Your task to perform on an android device: set default search engine in the chrome app Image 0: 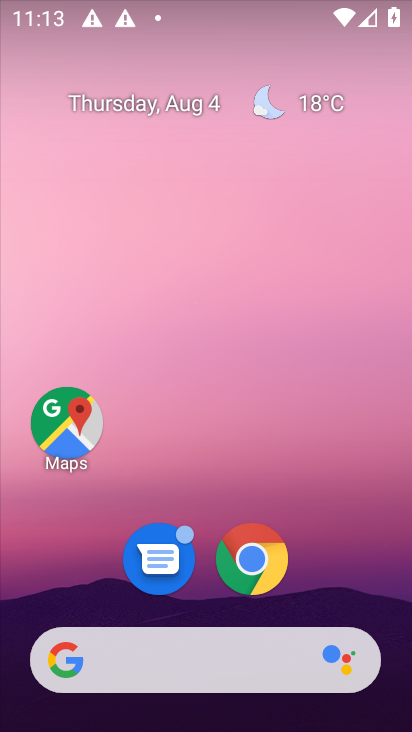
Step 0: click (256, 554)
Your task to perform on an android device: set default search engine in the chrome app Image 1: 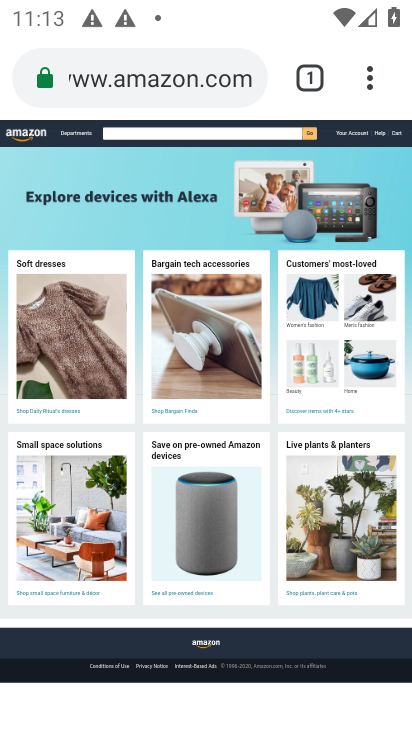
Step 1: click (369, 76)
Your task to perform on an android device: set default search engine in the chrome app Image 2: 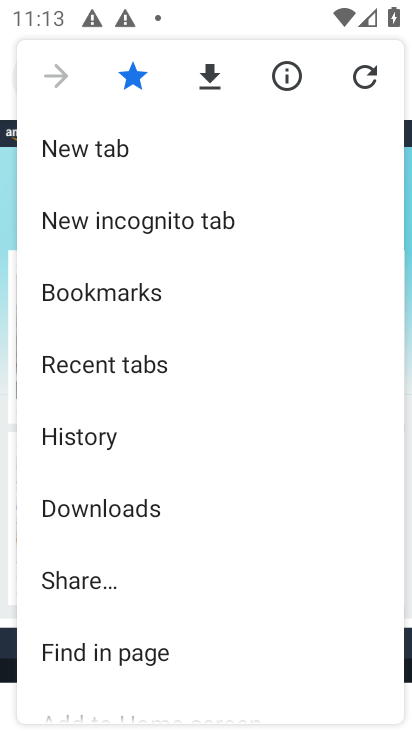
Step 2: click (409, 698)
Your task to perform on an android device: set default search engine in the chrome app Image 3: 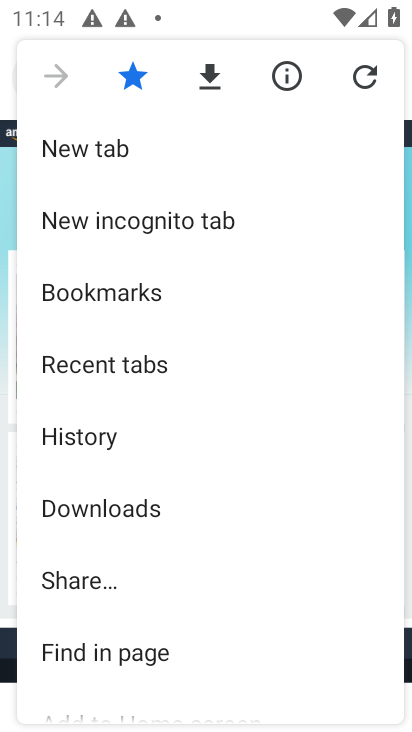
Step 3: drag from (367, 647) to (366, 469)
Your task to perform on an android device: set default search engine in the chrome app Image 4: 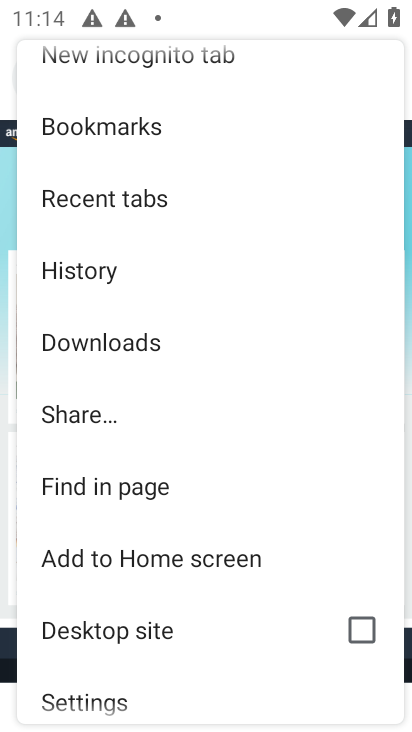
Step 4: click (124, 694)
Your task to perform on an android device: set default search engine in the chrome app Image 5: 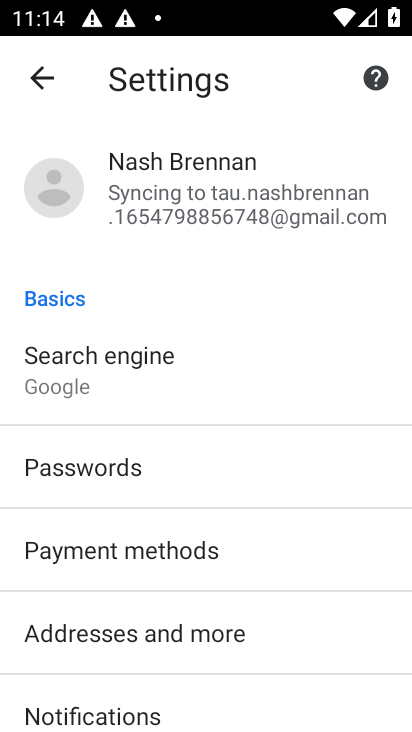
Step 5: click (112, 348)
Your task to perform on an android device: set default search engine in the chrome app Image 6: 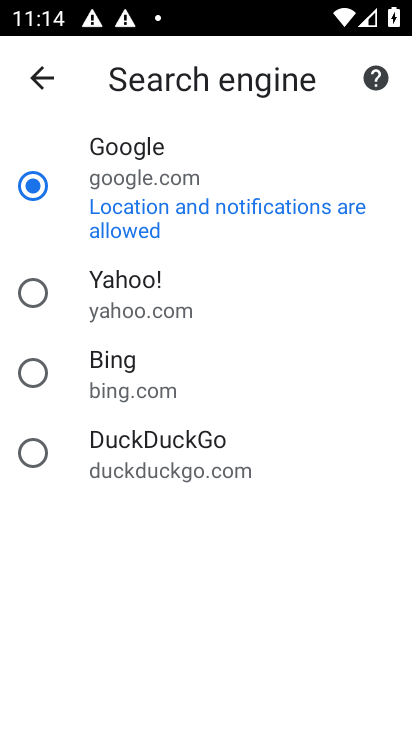
Step 6: task complete